Your task to perform on an android device: clear history in the chrome app Image 0: 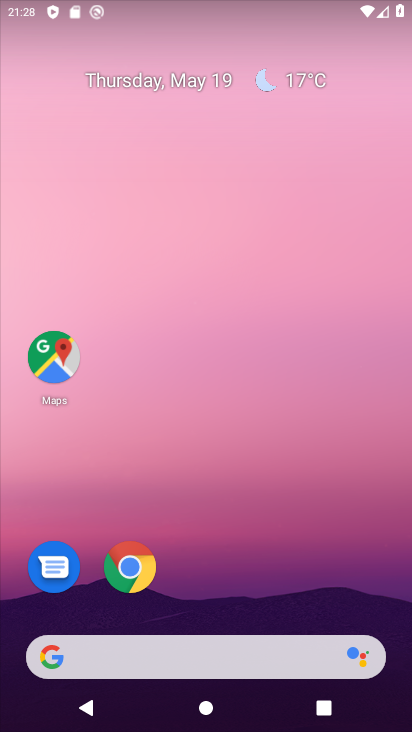
Step 0: click (144, 564)
Your task to perform on an android device: clear history in the chrome app Image 1: 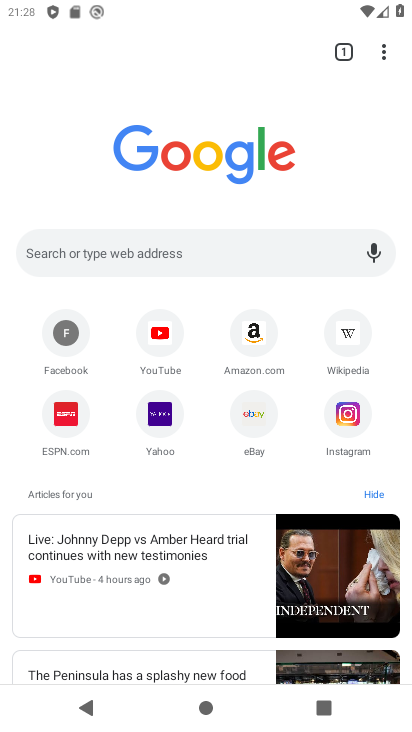
Step 1: click (386, 47)
Your task to perform on an android device: clear history in the chrome app Image 2: 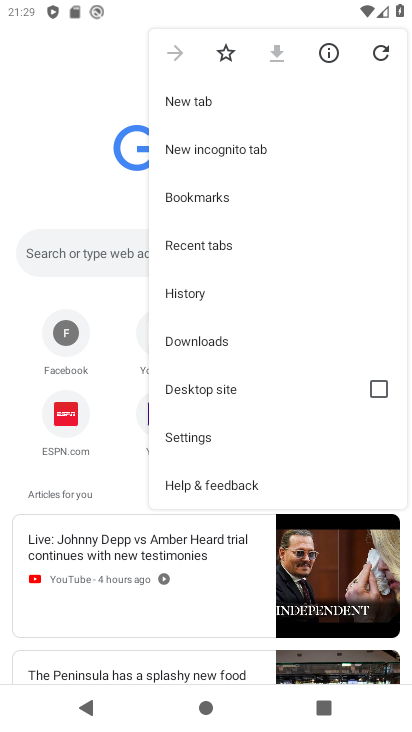
Step 2: click (204, 293)
Your task to perform on an android device: clear history in the chrome app Image 3: 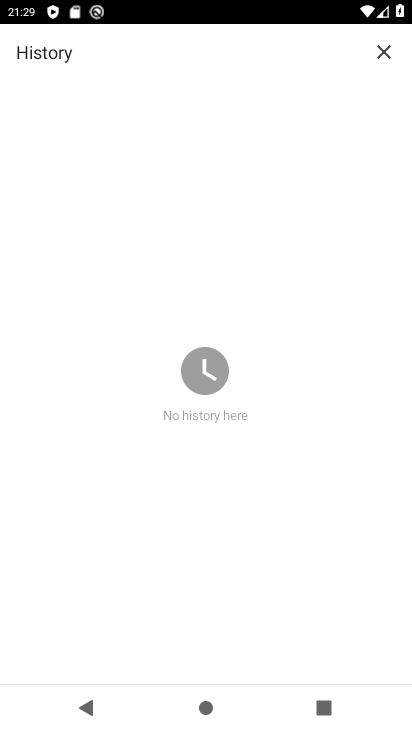
Step 3: task complete